Your task to perform on an android device: turn notification dots off Image 0: 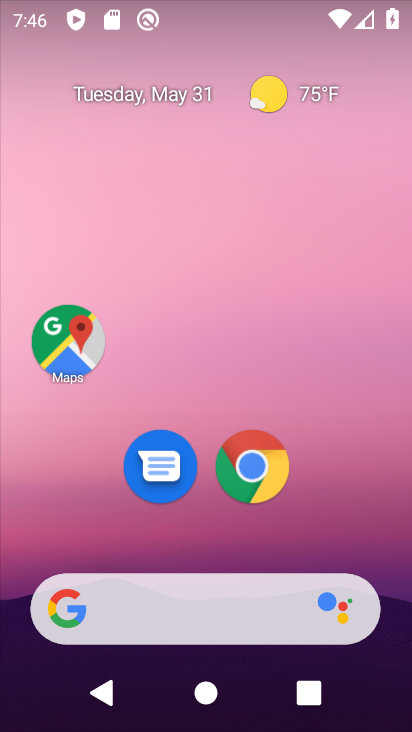
Step 0: drag from (201, 460) to (212, 41)
Your task to perform on an android device: turn notification dots off Image 1: 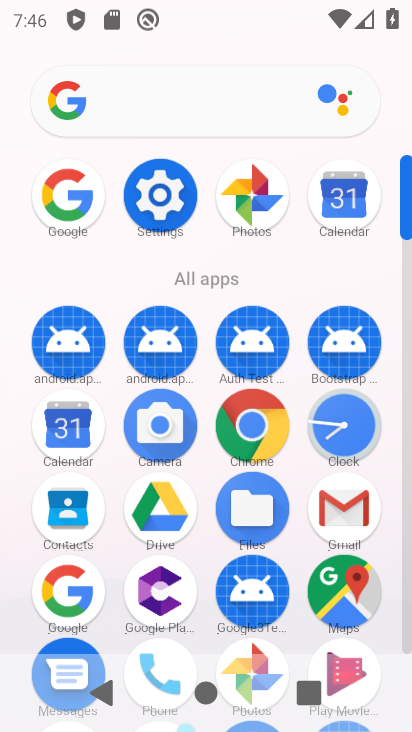
Step 1: click (164, 207)
Your task to perform on an android device: turn notification dots off Image 2: 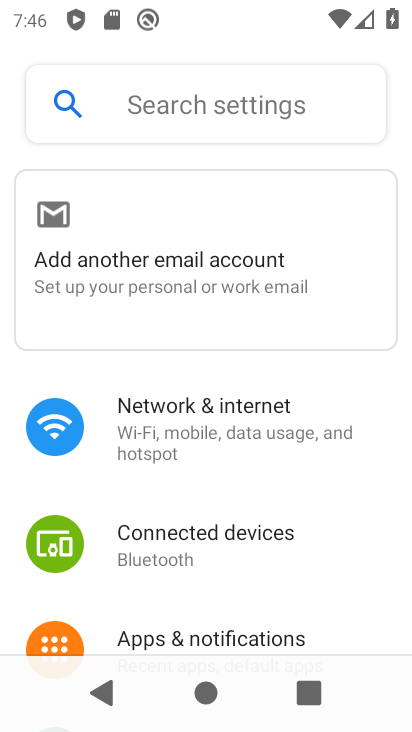
Step 2: click (203, 639)
Your task to perform on an android device: turn notification dots off Image 3: 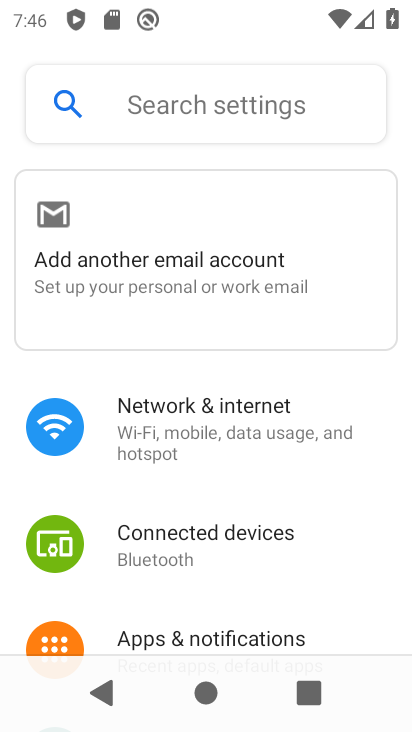
Step 3: drag from (203, 638) to (325, 84)
Your task to perform on an android device: turn notification dots off Image 4: 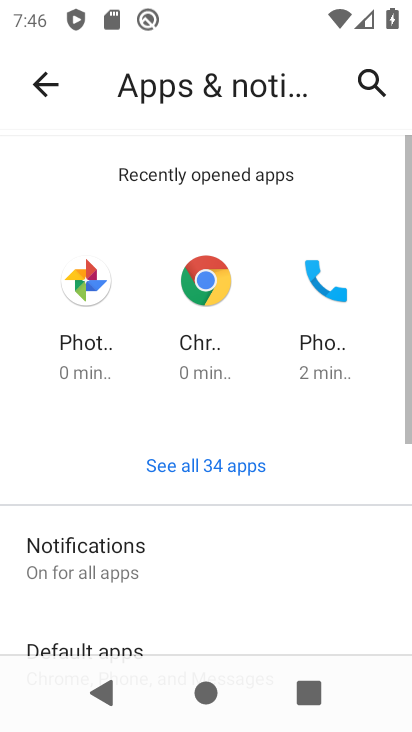
Step 4: drag from (228, 552) to (274, 190)
Your task to perform on an android device: turn notification dots off Image 5: 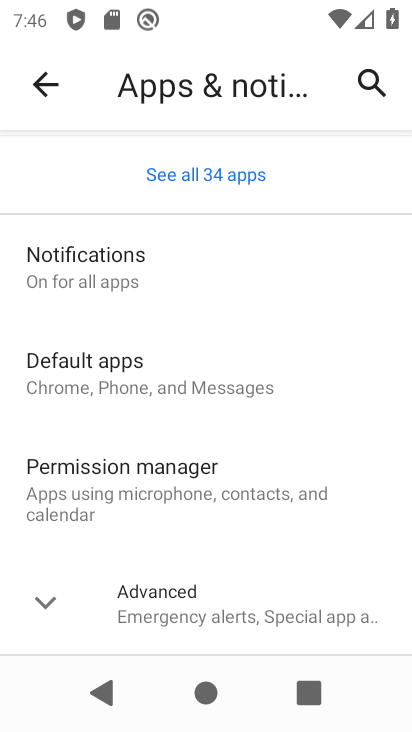
Step 5: click (178, 257)
Your task to perform on an android device: turn notification dots off Image 6: 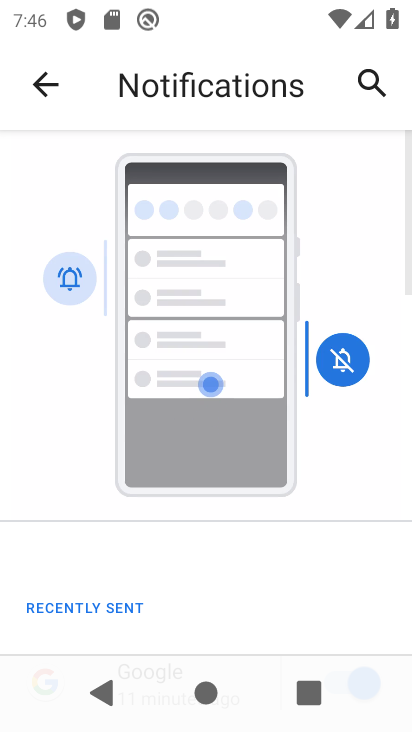
Step 6: drag from (237, 580) to (302, 195)
Your task to perform on an android device: turn notification dots off Image 7: 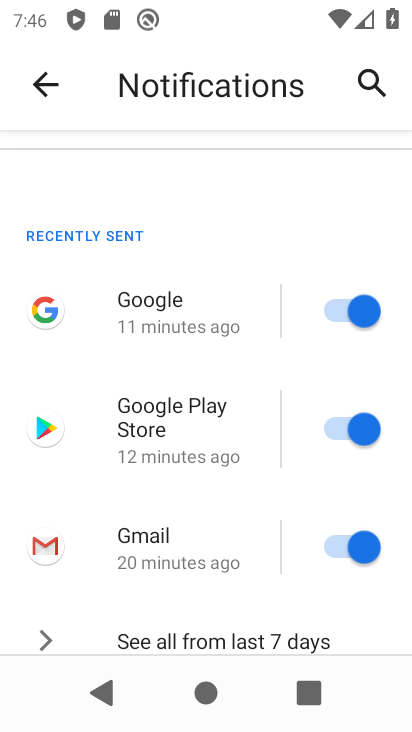
Step 7: drag from (235, 616) to (277, 152)
Your task to perform on an android device: turn notification dots off Image 8: 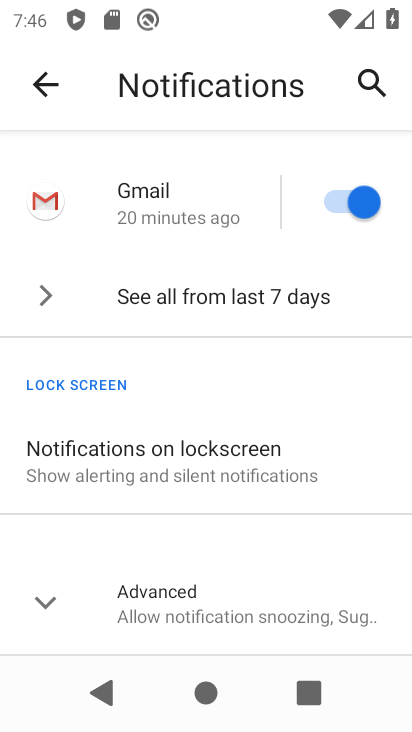
Step 8: click (176, 605)
Your task to perform on an android device: turn notification dots off Image 9: 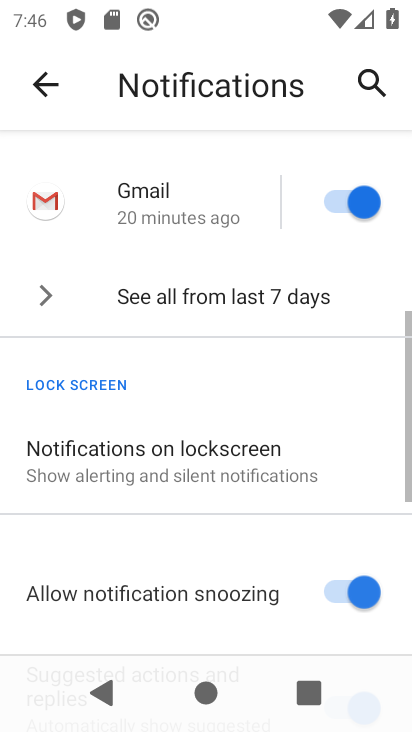
Step 9: drag from (180, 581) to (274, 101)
Your task to perform on an android device: turn notification dots off Image 10: 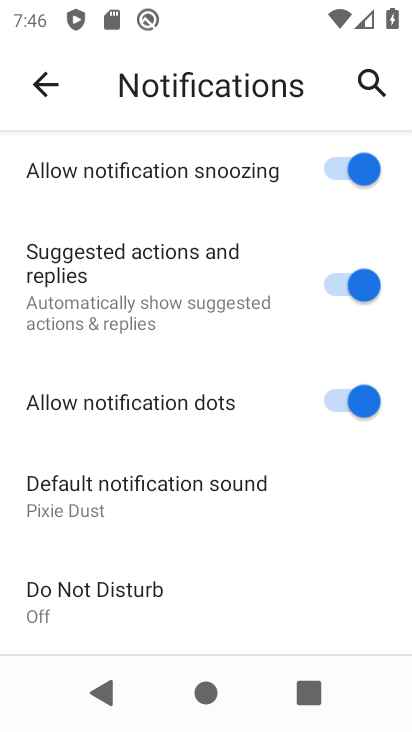
Step 10: drag from (231, 253) to (280, 622)
Your task to perform on an android device: turn notification dots off Image 11: 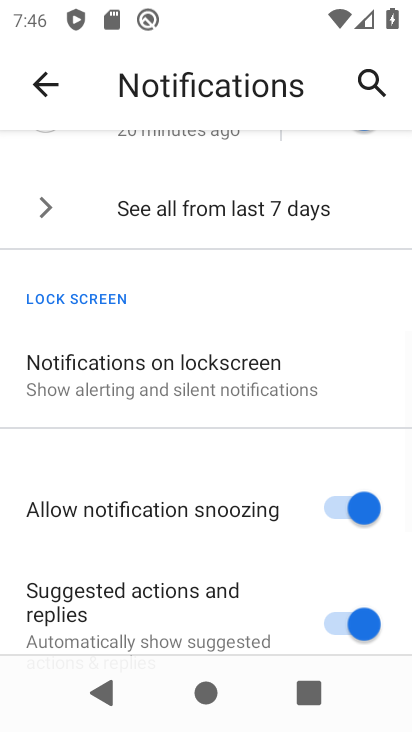
Step 11: drag from (281, 550) to (304, 250)
Your task to perform on an android device: turn notification dots off Image 12: 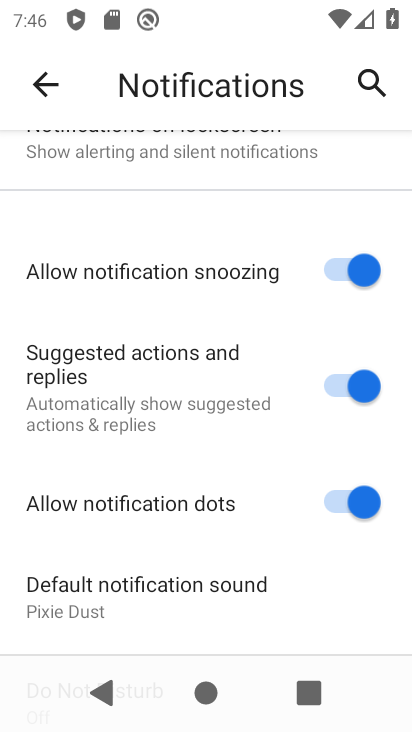
Step 12: drag from (255, 536) to (301, 292)
Your task to perform on an android device: turn notification dots off Image 13: 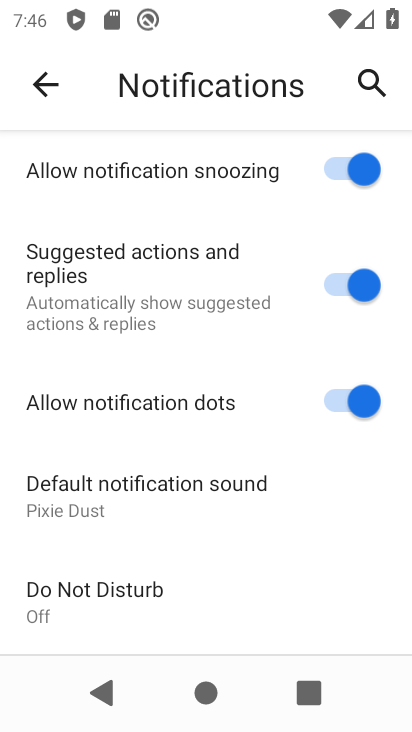
Step 13: drag from (170, 592) to (217, 478)
Your task to perform on an android device: turn notification dots off Image 14: 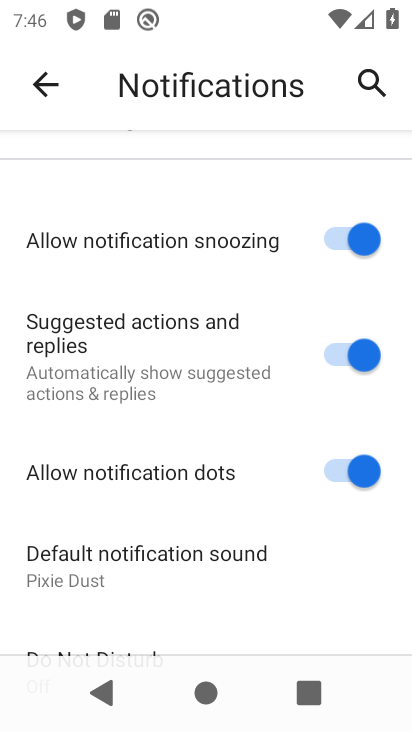
Step 14: click (352, 472)
Your task to perform on an android device: turn notification dots off Image 15: 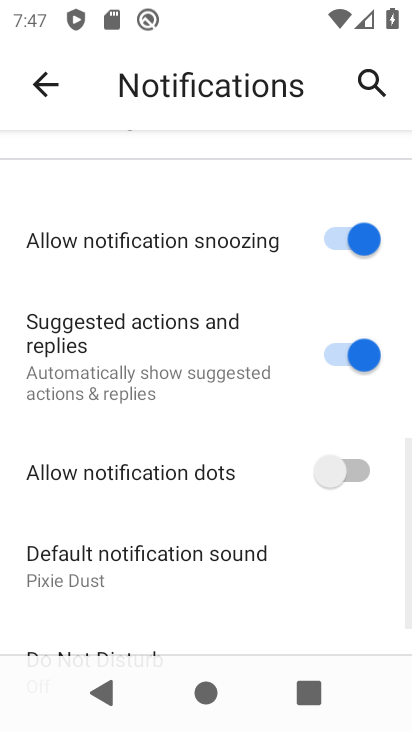
Step 15: task complete